Your task to perform on an android device: refresh tabs in the chrome app Image 0: 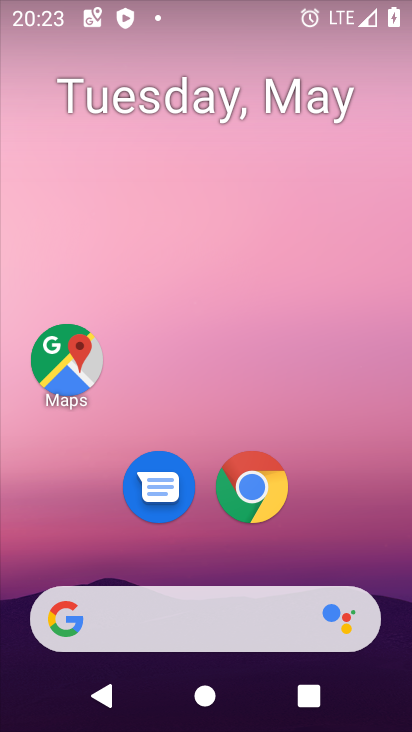
Step 0: click (249, 485)
Your task to perform on an android device: refresh tabs in the chrome app Image 1: 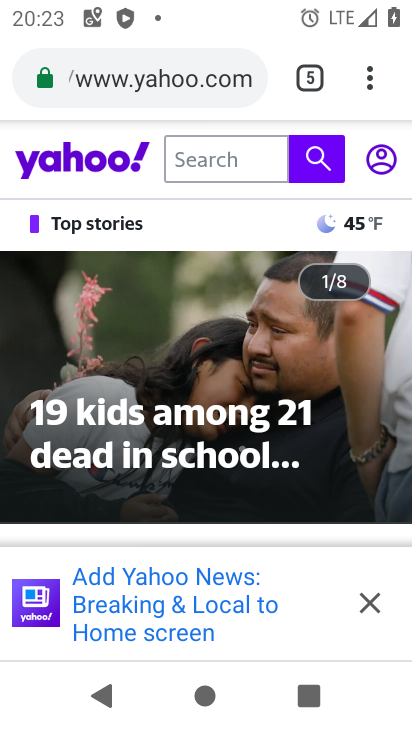
Step 1: click (368, 74)
Your task to perform on an android device: refresh tabs in the chrome app Image 2: 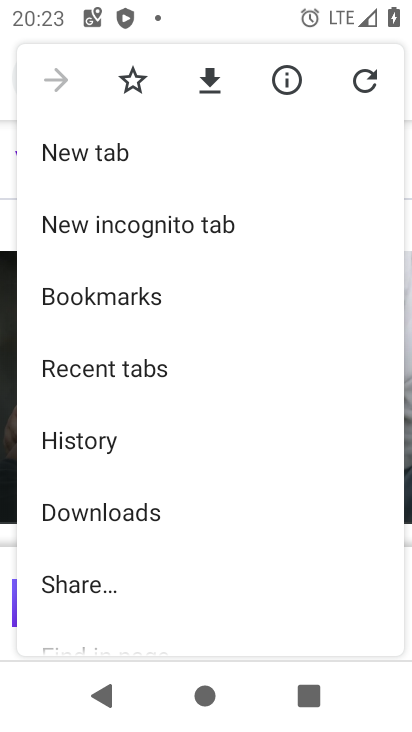
Step 2: click (364, 74)
Your task to perform on an android device: refresh tabs in the chrome app Image 3: 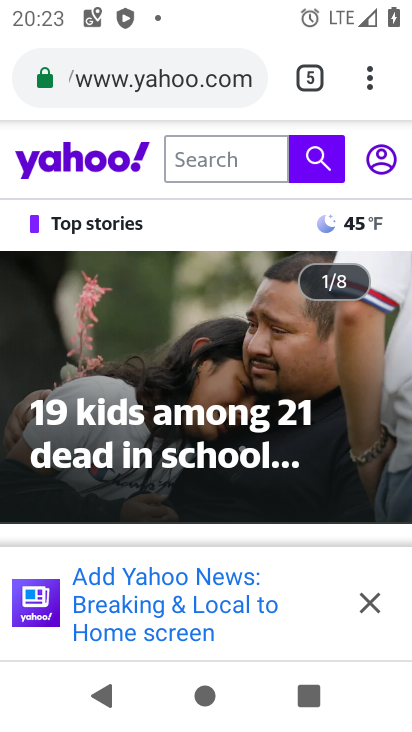
Step 3: task complete